Your task to perform on an android device: Play the last video I watched on Youtube Image 0: 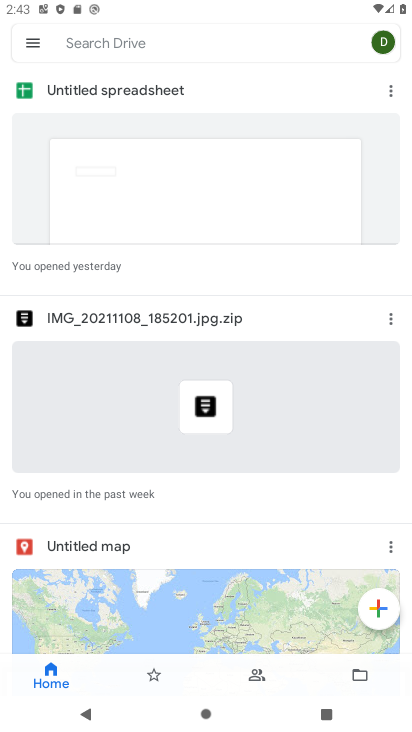
Step 0: press home button
Your task to perform on an android device: Play the last video I watched on Youtube Image 1: 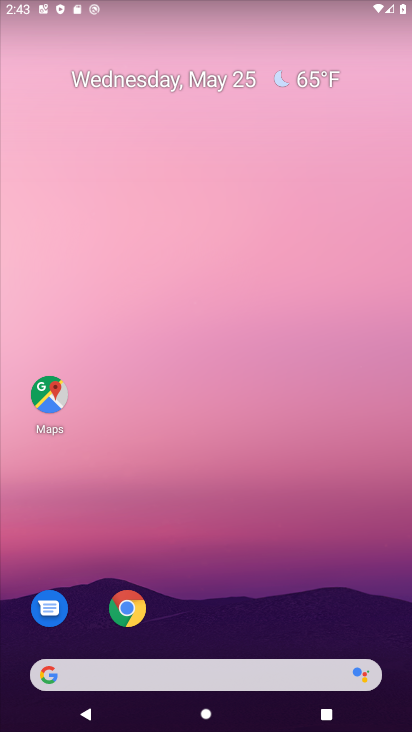
Step 1: drag from (305, 632) to (289, 33)
Your task to perform on an android device: Play the last video I watched on Youtube Image 2: 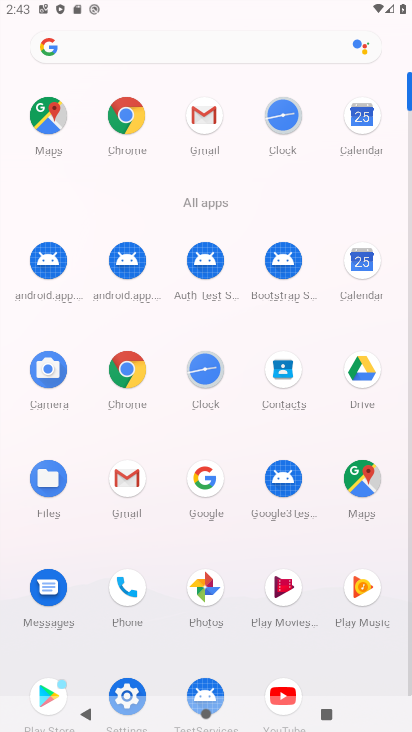
Step 2: click (283, 684)
Your task to perform on an android device: Play the last video I watched on Youtube Image 3: 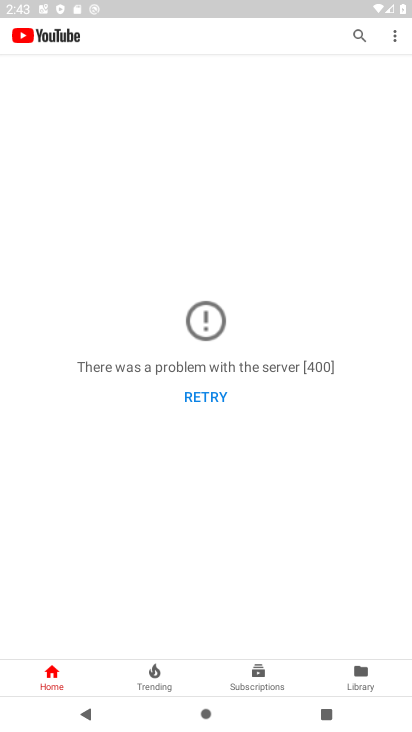
Step 3: click (351, 682)
Your task to perform on an android device: Play the last video I watched on Youtube Image 4: 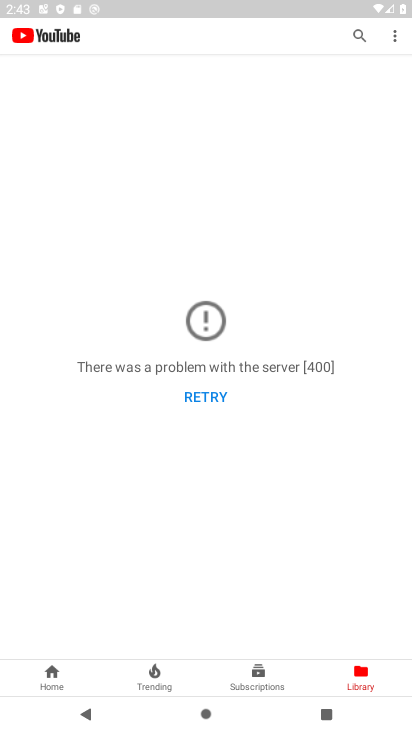
Step 4: task complete